Your task to perform on an android device: Is it going to rain today? Image 0: 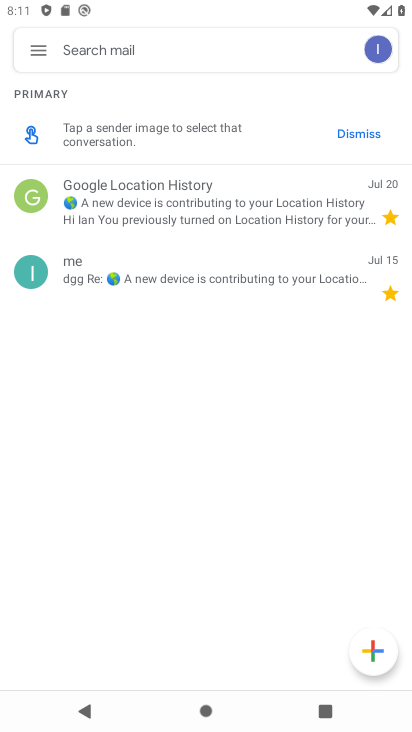
Step 0: press home button
Your task to perform on an android device: Is it going to rain today? Image 1: 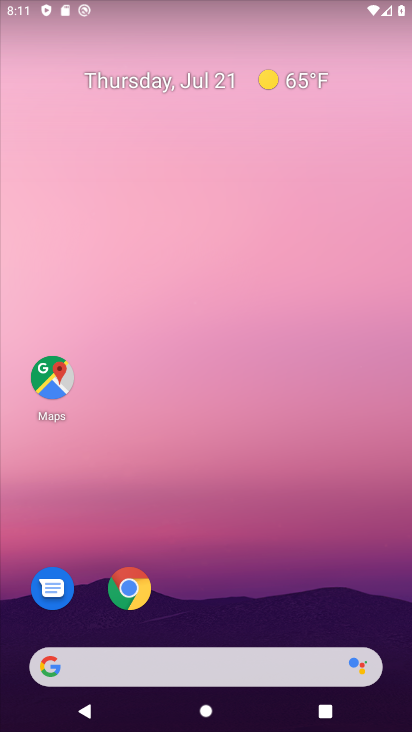
Step 1: click (237, 654)
Your task to perform on an android device: Is it going to rain today? Image 2: 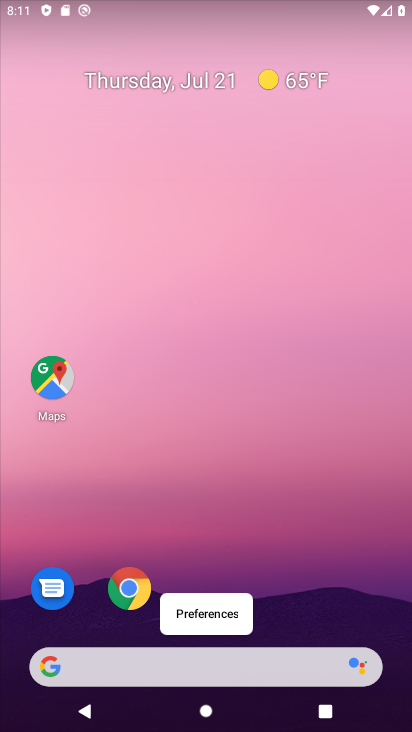
Step 2: click (208, 678)
Your task to perform on an android device: Is it going to rain today? Image 3: 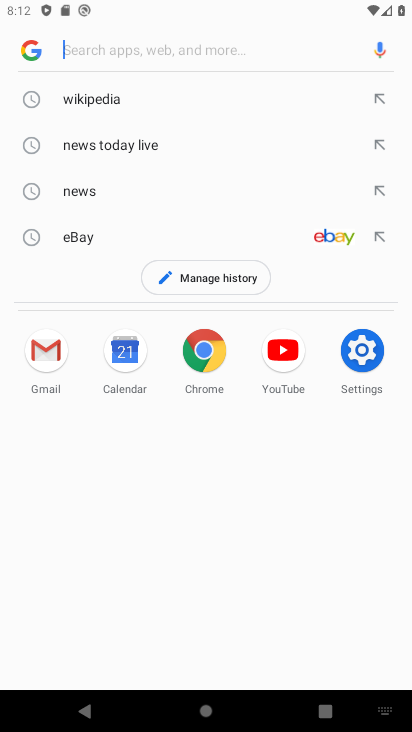
Step 3: type "weather"
Your task to perform on an android device: Is it going to rain today? Image 4: 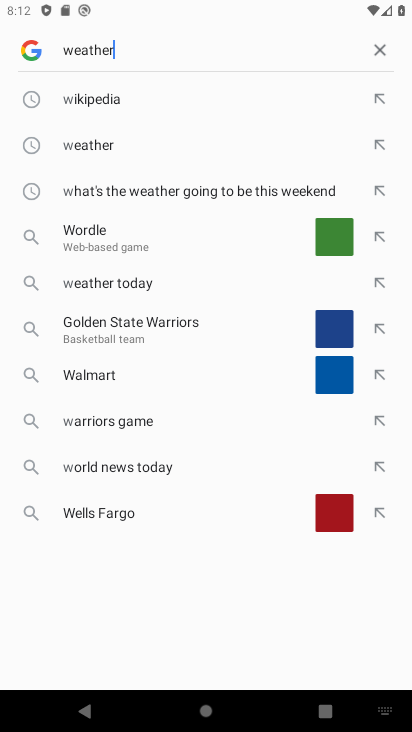
Step 4: type ""
Your task to perform on an android device: Is it going to rain today? Image 5: 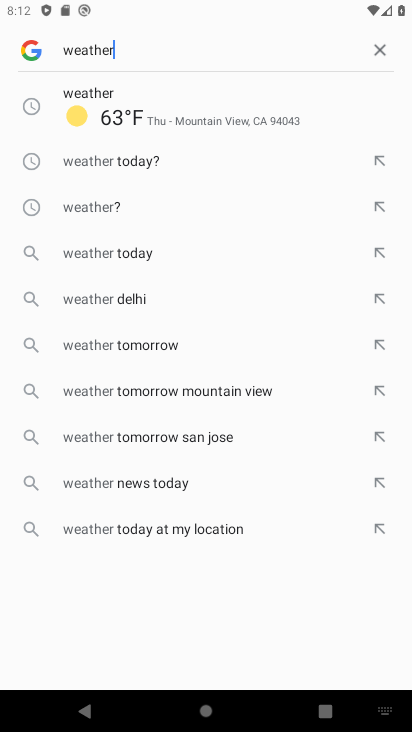
Step 5: click (83, 106)
Your task to perform on an android device: Is it going to rain today? Image 6: 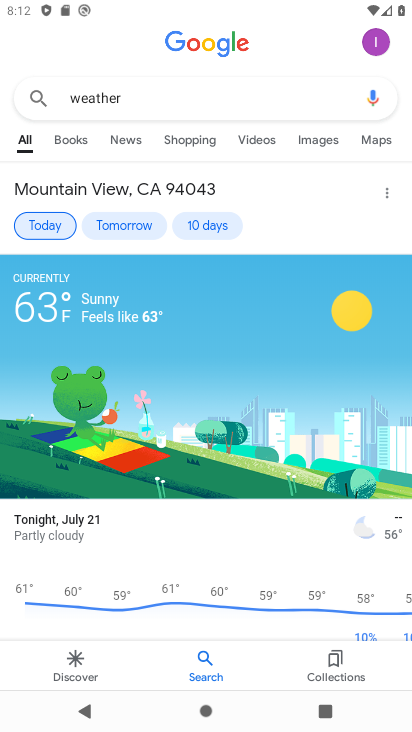
Step 6: click (31, 229)
Your task to perform on an android device: Is it going to rain today? Image 7: 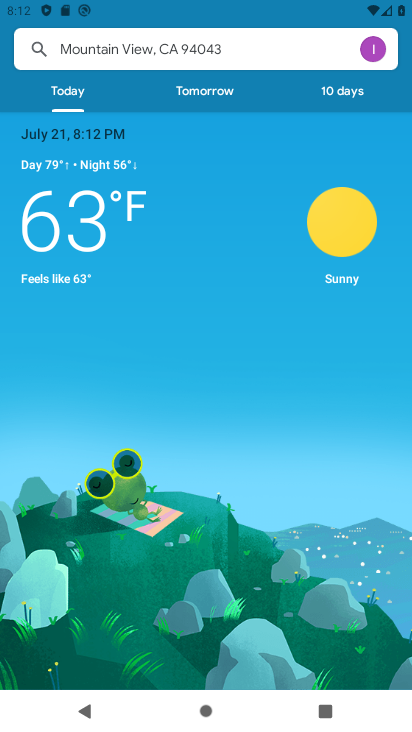
Step 7: task complete